Your task to perform on an android device: Open display settings Image 0: 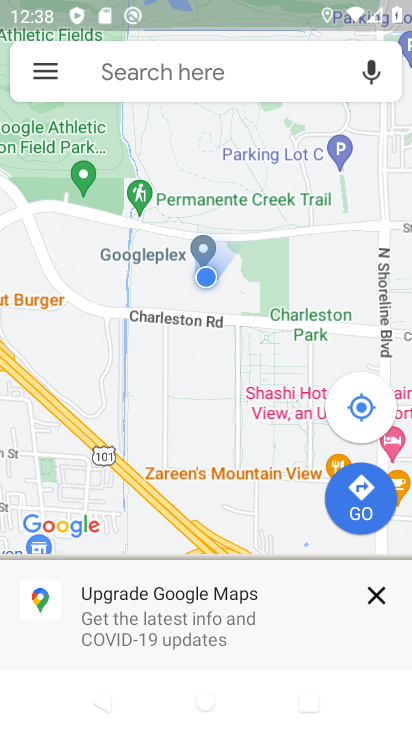
Step 0: press home button
Your task to perform on an android device: Open display settings Image 1: 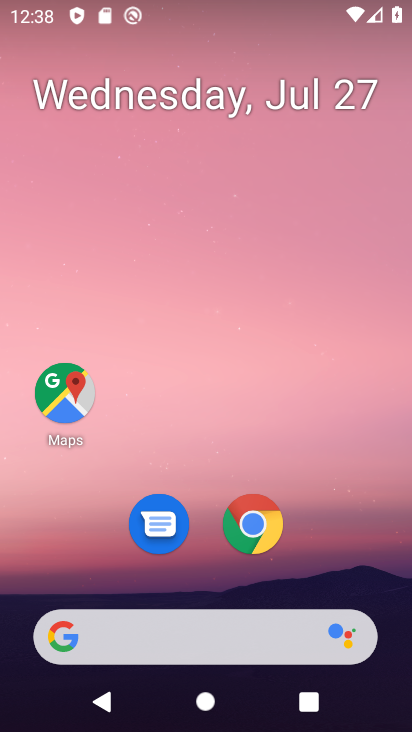
Step 1: drag from (325, 515) to (348, 31)
Your task to perform on an android device: Open display settings Image 2: 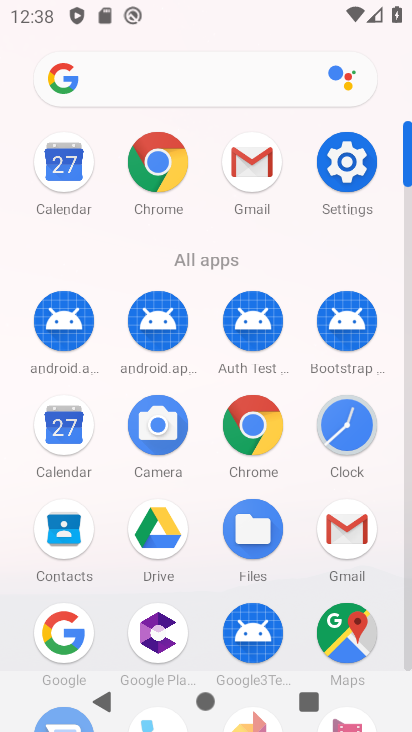
Step 2: click (349, 171)
Your task to perform on an android device: Open display settings Image 3: 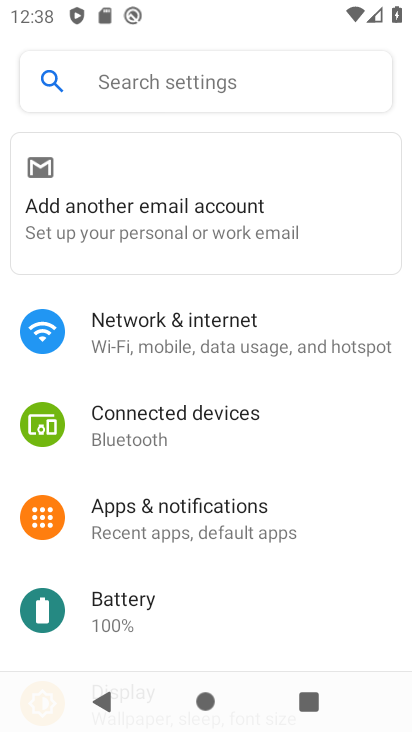
Step 3: drag from (213, 589) to (295, 124)
Your task to perform on an android device: Open display settings Image 4: 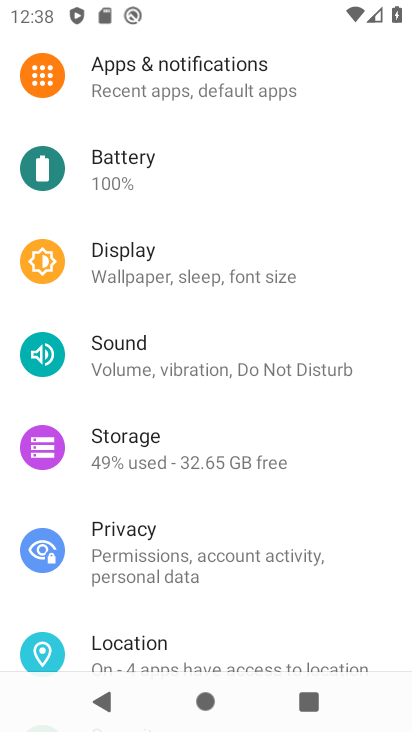
Step 4: click (239, 253)
Your task to perform on an android device: Open display settings Image 5: 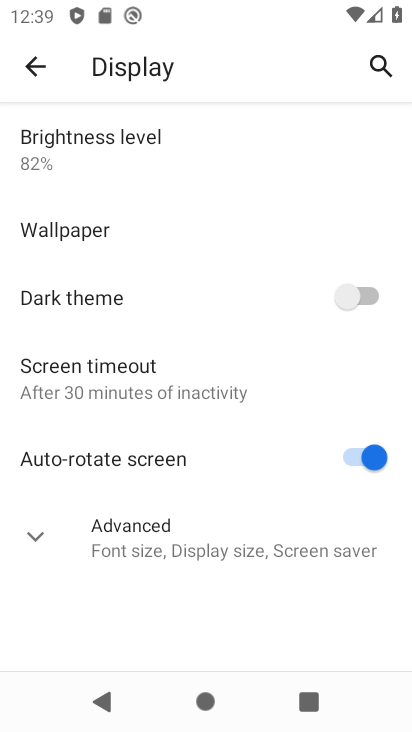
Step 5: click (39, 531)
Your task to perform on an android device: Open display settings Image 6: 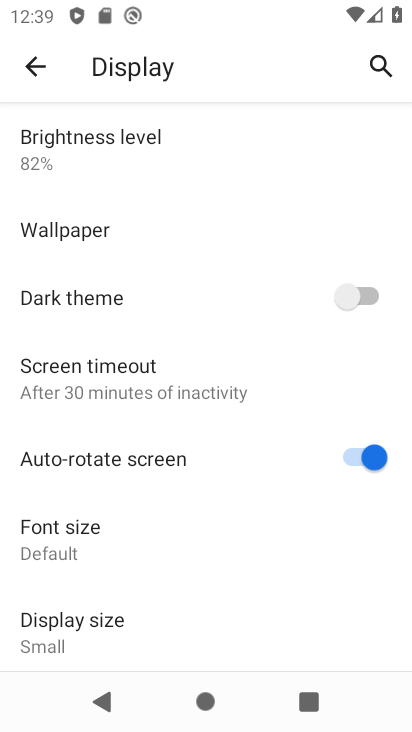
Step 6: task complete